Your task to perform on an android device: open sync settings in chrome Image 0: 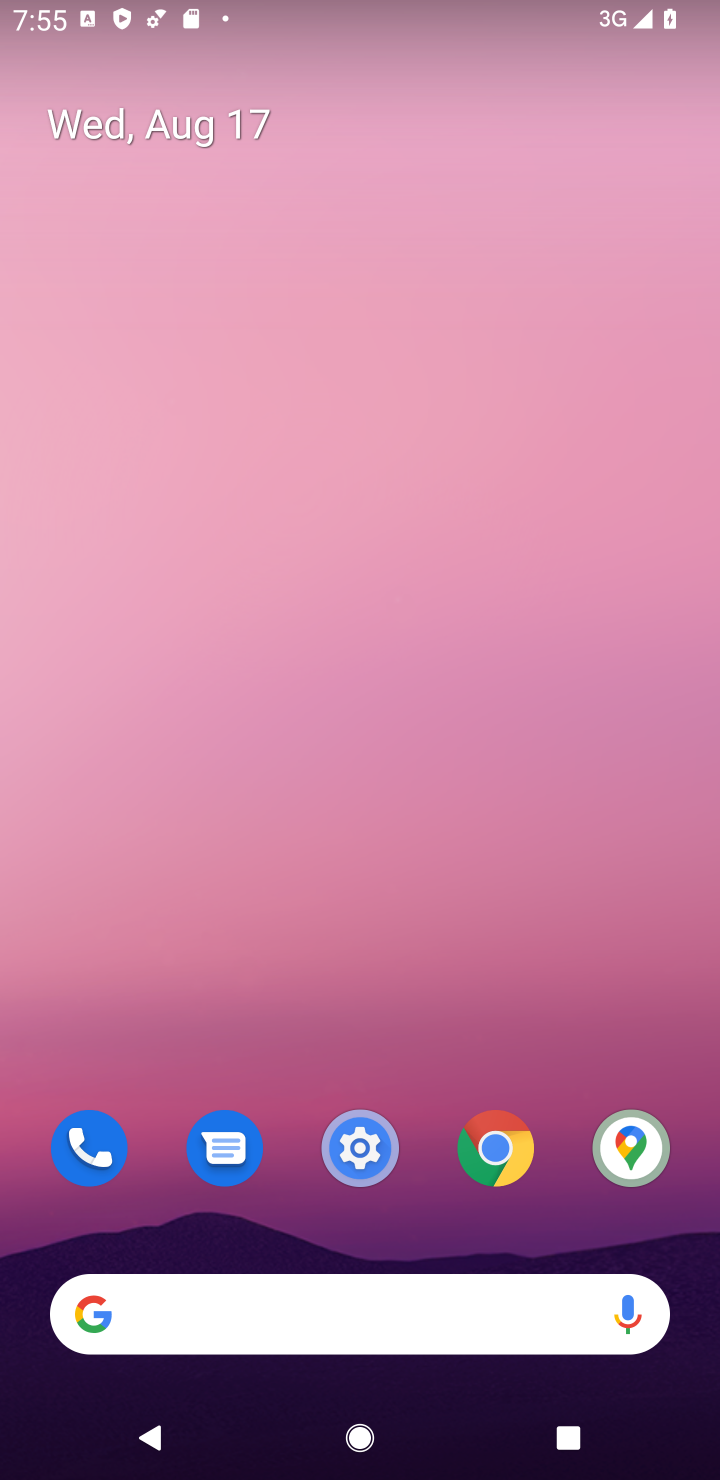
Step 0: click (499, 1155)
Your task to perform on an android device: open sync settings in chrome Image 1: 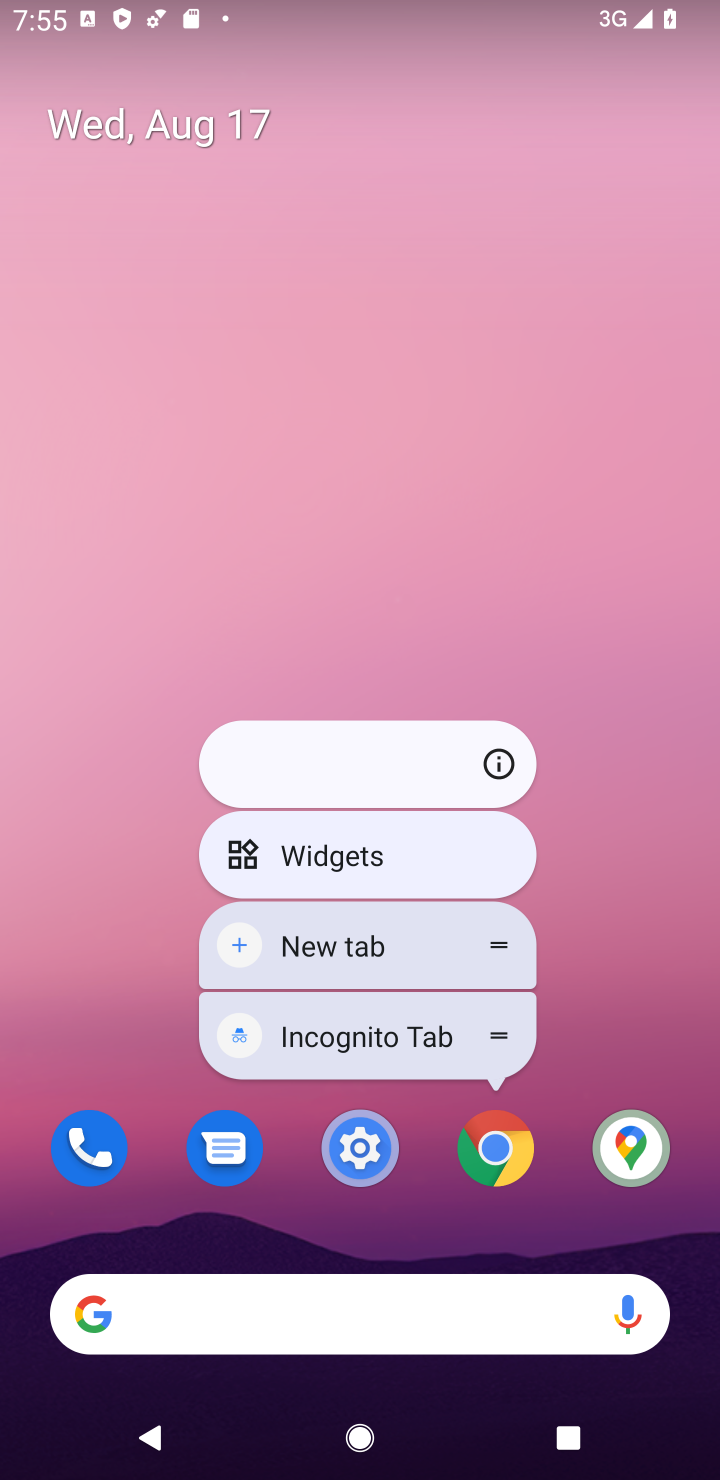
Step 1: click (499, 1155)
Your task to perform on an android device: open sync settings in chrome Image 2: 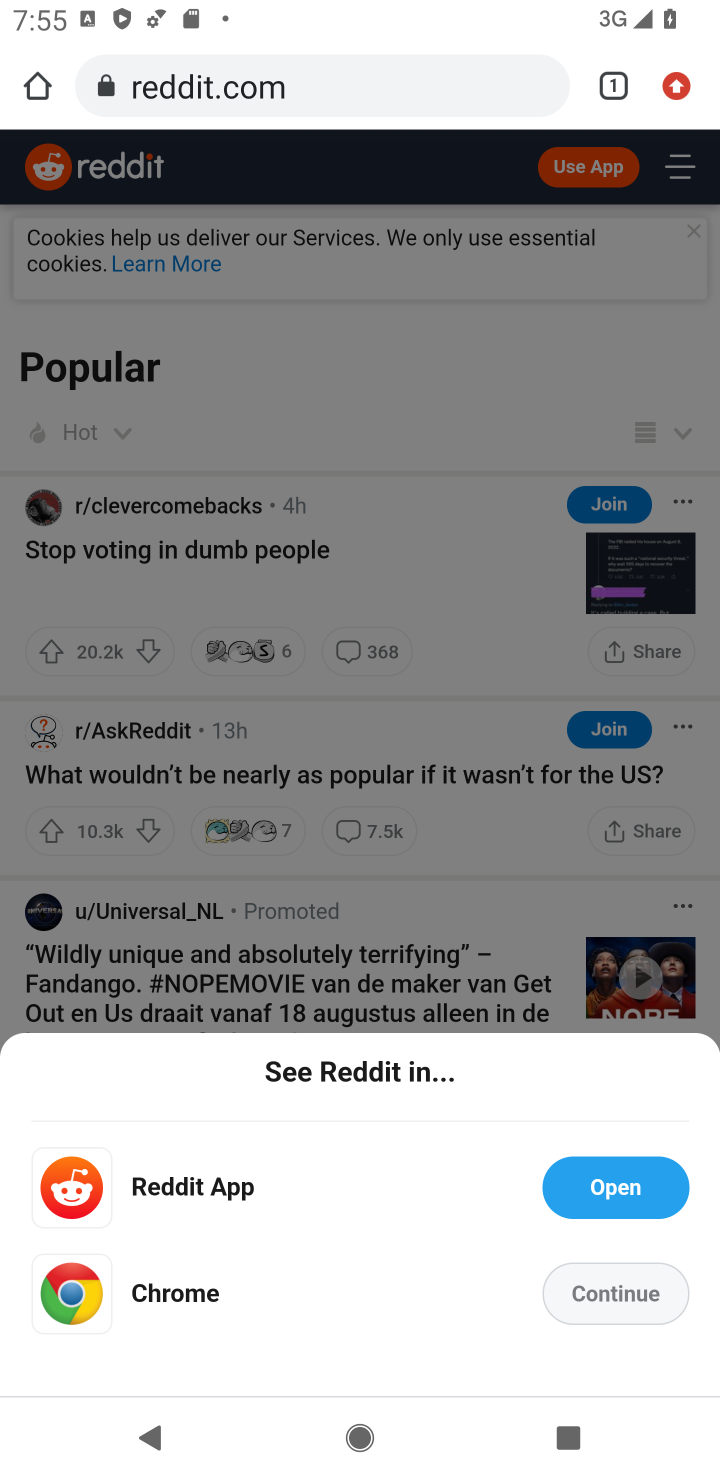
Step 2: click (673, 88)
Your task to perform on an android device: open sync settings in chrome Image 3: 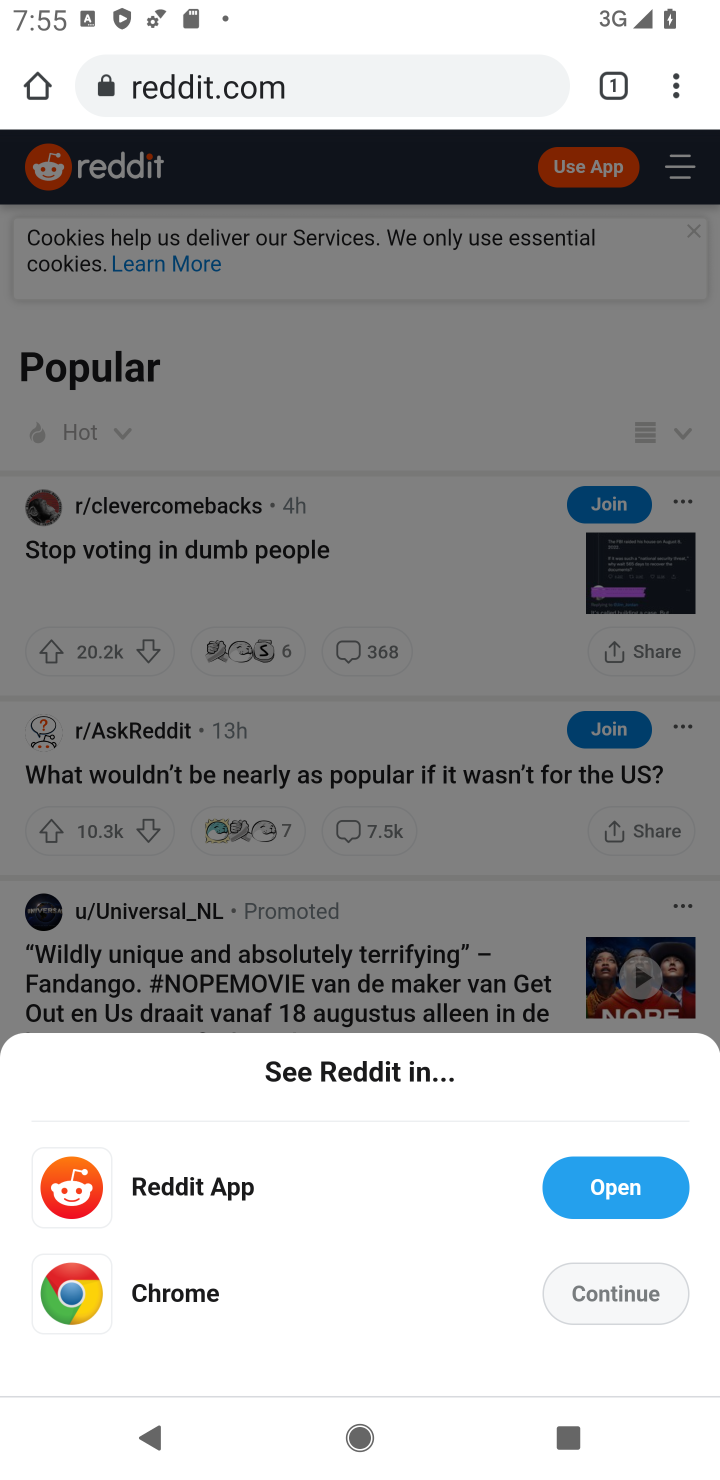
Step 3: click (673, 99)
Your task to perform on an android device: open sync settings in chrome Image 4: 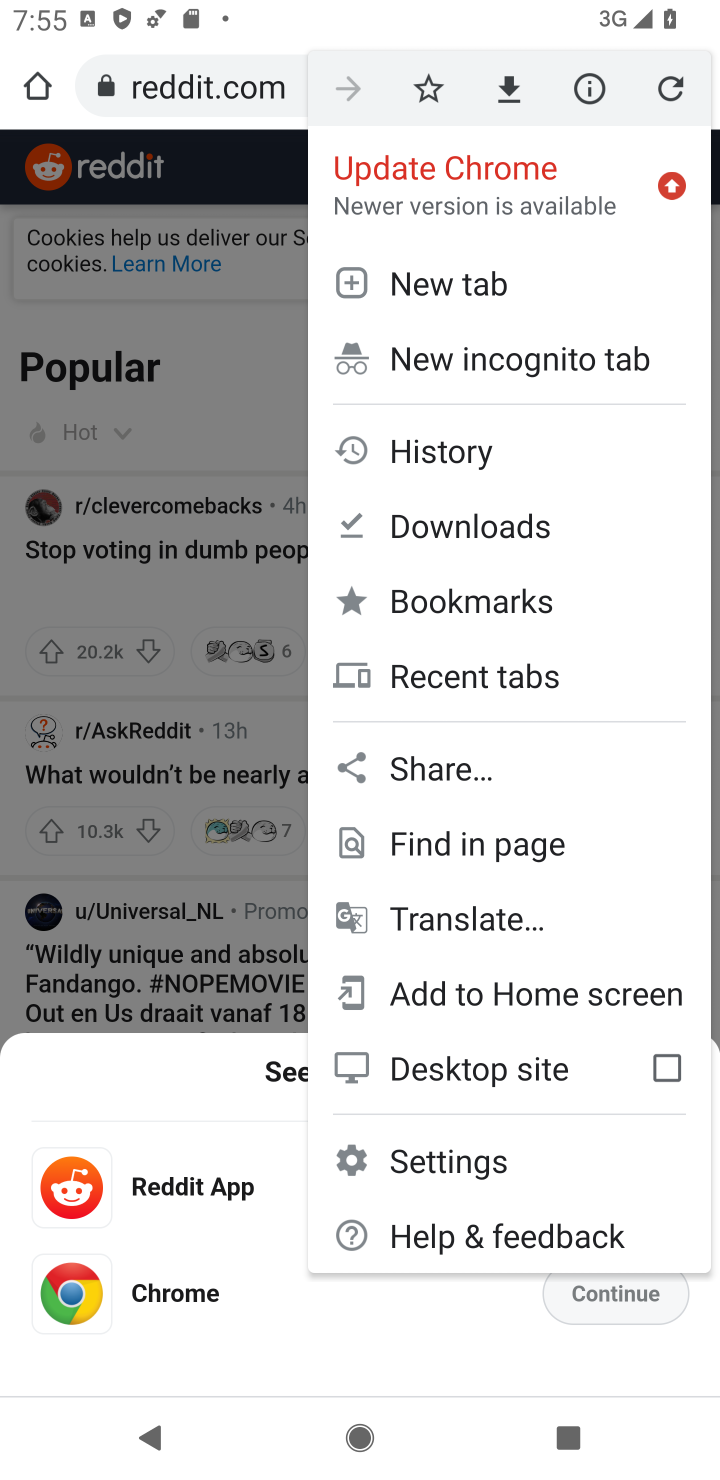
Step 4: click (439, 1152)
Your task to perform on an android device: open sync settings in chrome Image 5: 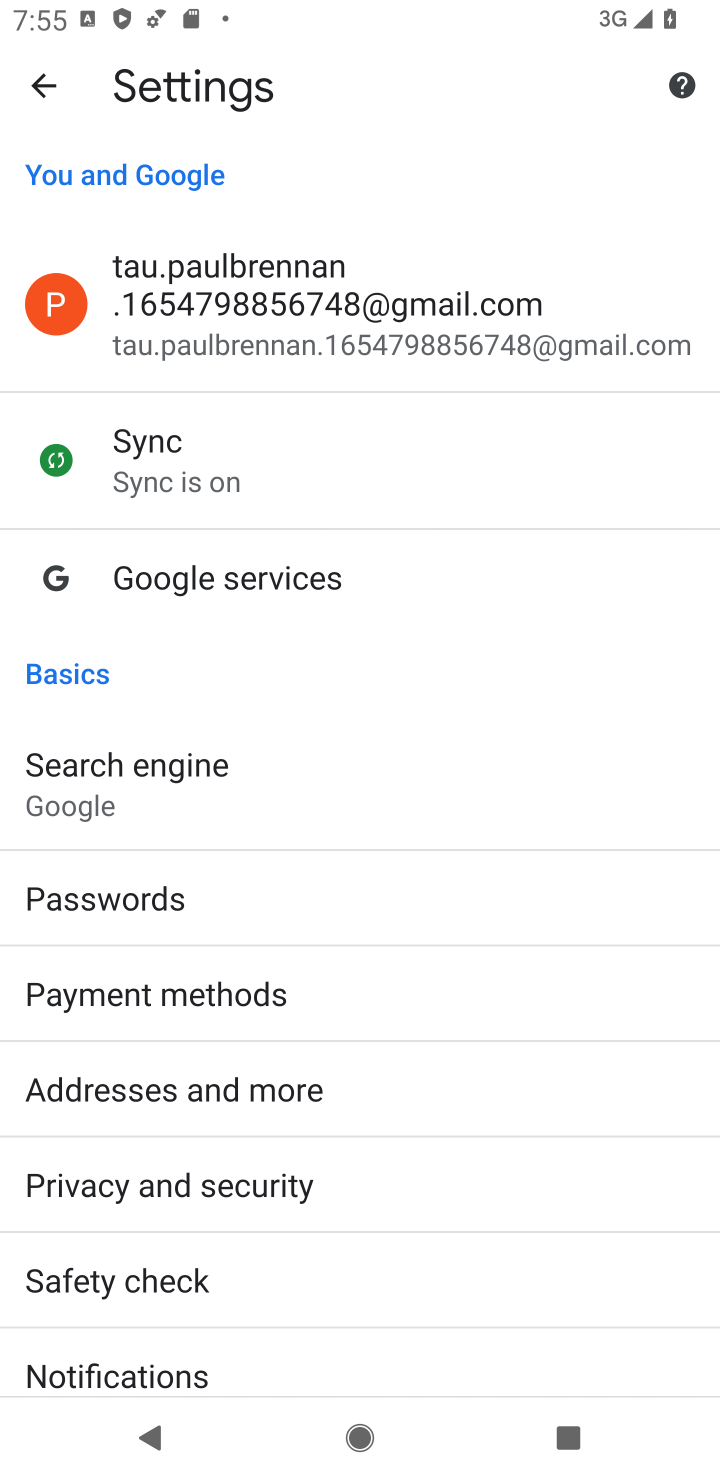
Step 5: click (153, 453)
Your task to perform on an android device: open sync settings in chrome Image 6: 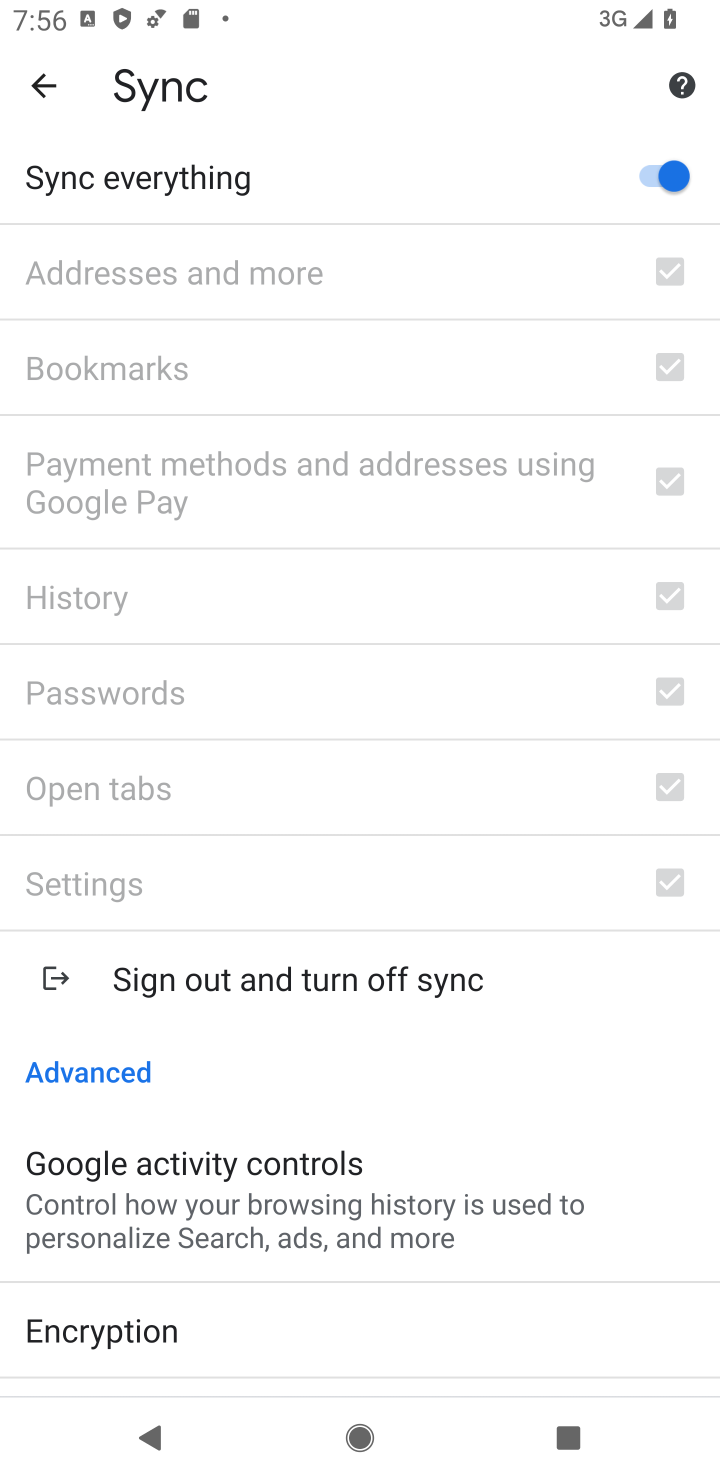
Step 6: task complete